Your task to perform on an android device: refresh tabs in the chrome app Image 0: 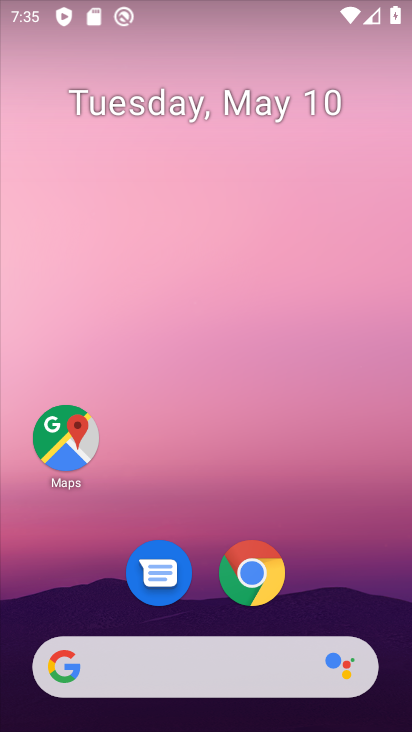
Step 0: drag from (327, 594) to (340, 147)
Your task to perform on an android device: refresh tabs in the chrome app Image 1: 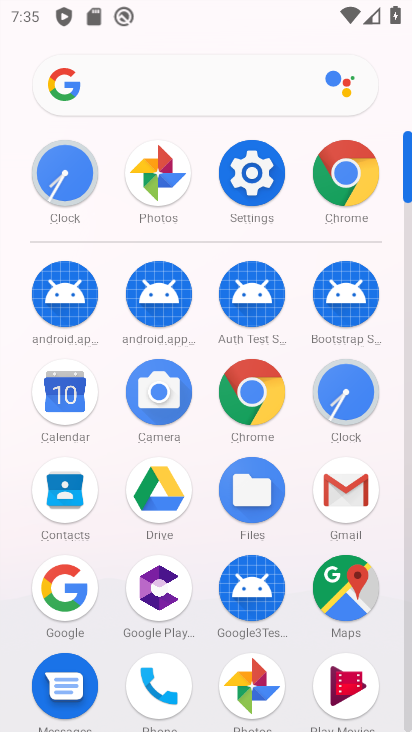
Step 1: click (243, 423)
Your task to perform on an android device: refresh tabs in the chrome app Image 2: 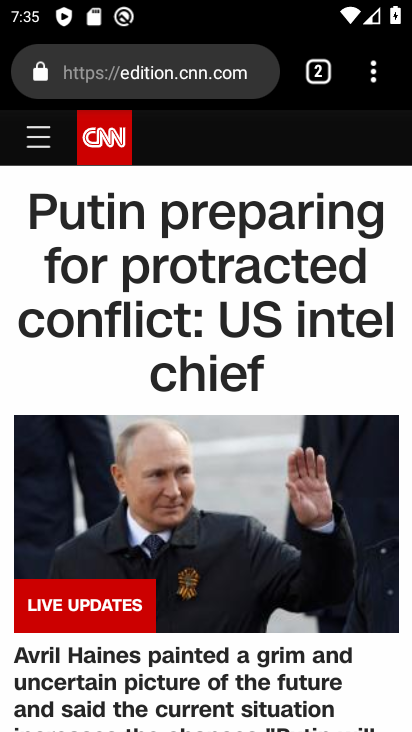
Step 2: click (375, 77)
Your task to perform on an android device: refresh tabs in the chrome app Image 3: 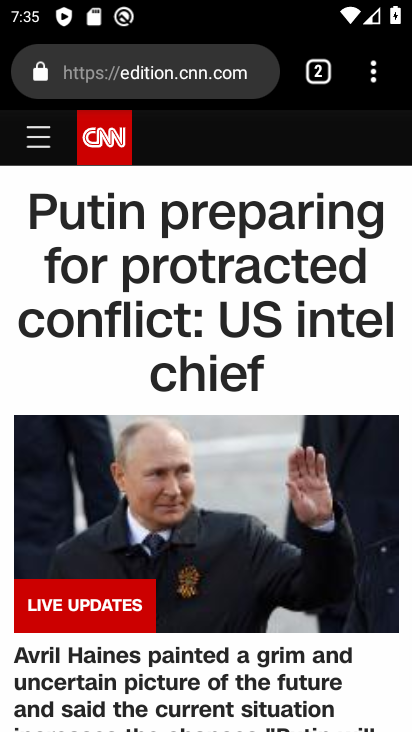
Step 3: task complete